Your task to perform on an android device: Open Youtube and go to the subscriptions tab Image 0: 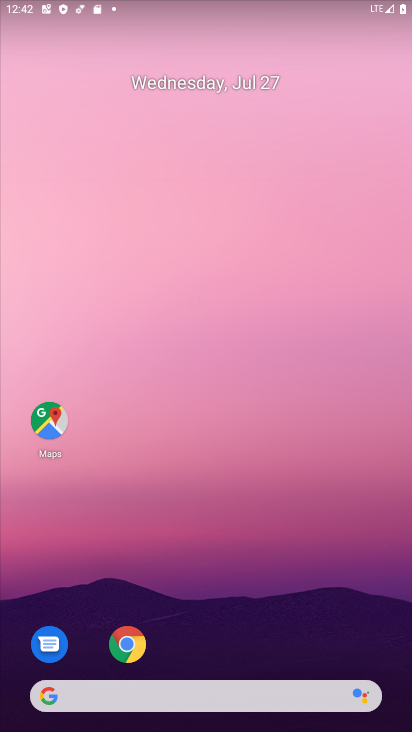
Step 0: drag from (190, 655) to (135, 27)
Your task to perform on an android device: Open Youtube and go to the subscriptions tab Image 1: 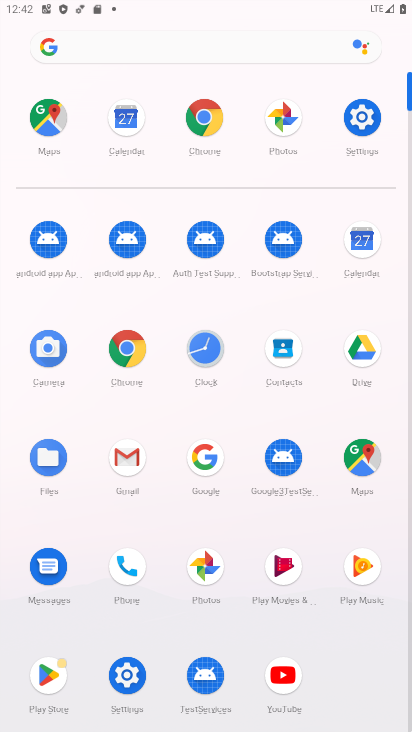
Step 1: click (287, 685)
Your task to perform on an android device: Open Youtube and go to the subscriptions tab Image 2: 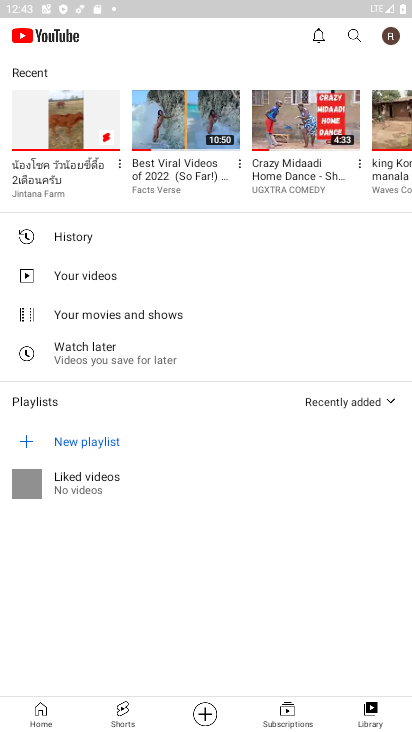
Step 2: click (293, 718)
Your task to perform on an android device: Open Youtube and go to the subscriptions tab Image 3: 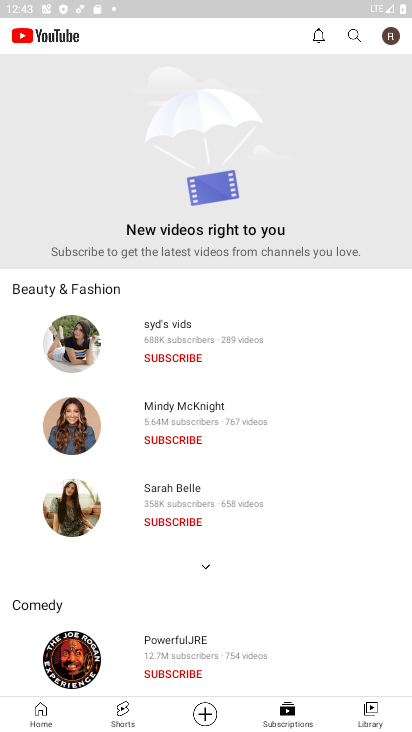
Step 3: task complete